Your task to perform on an android device: uninstall "Fetch Rewards" Image 0: 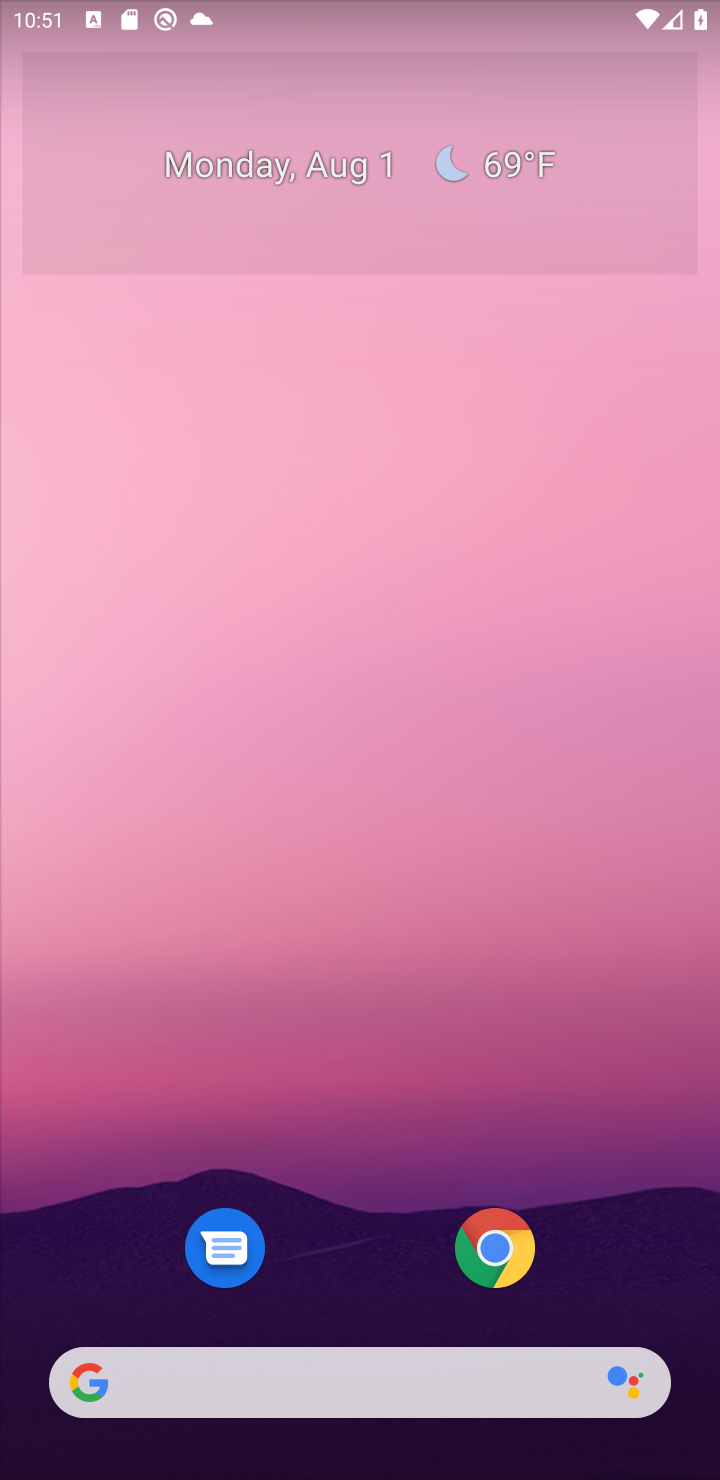
Step 0: drag from (354, 898) to (429, 220)
Your task to perform on an android device: uninstall "Fetch Rewards" Image 1: 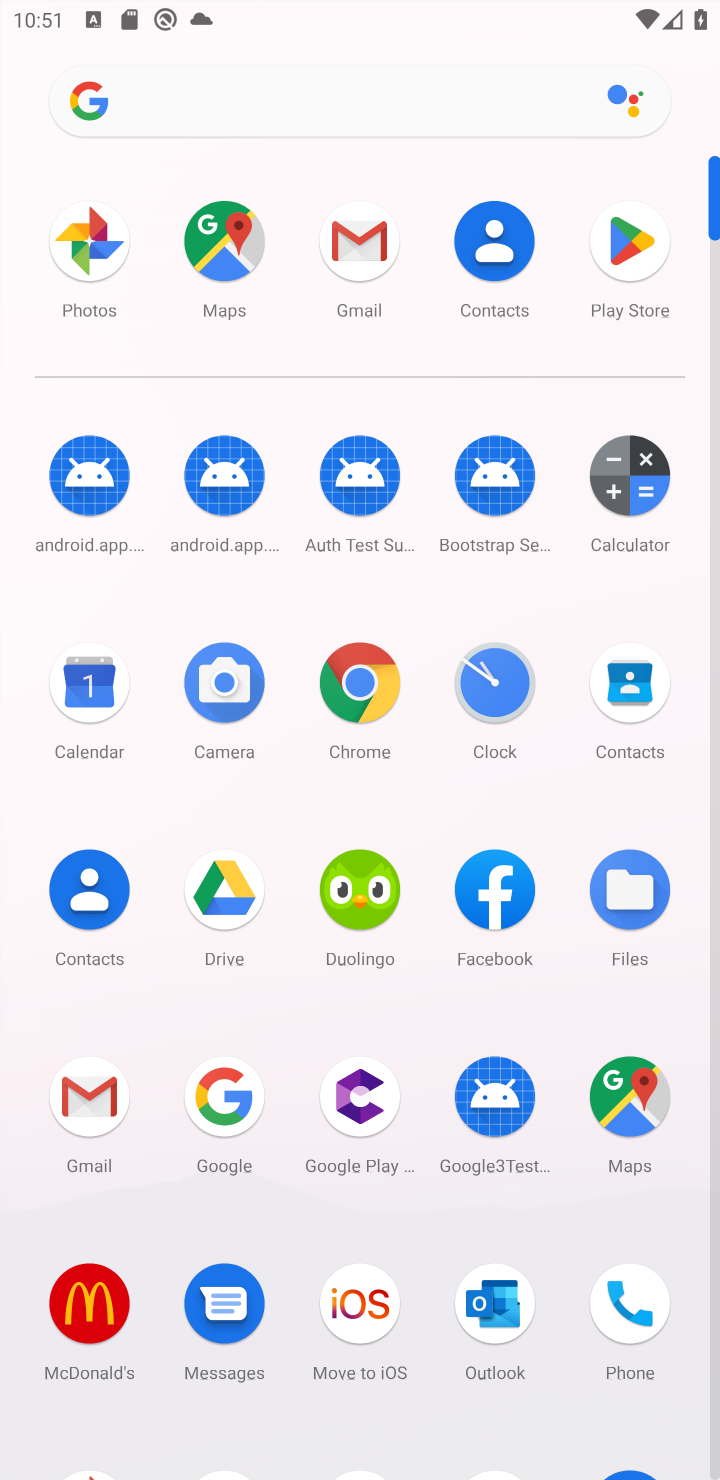
Step 1: drag from (426, 1084) to (518, 395)
Your task to perform on an android device: uninstall "Fetch Rewards" Image 2: 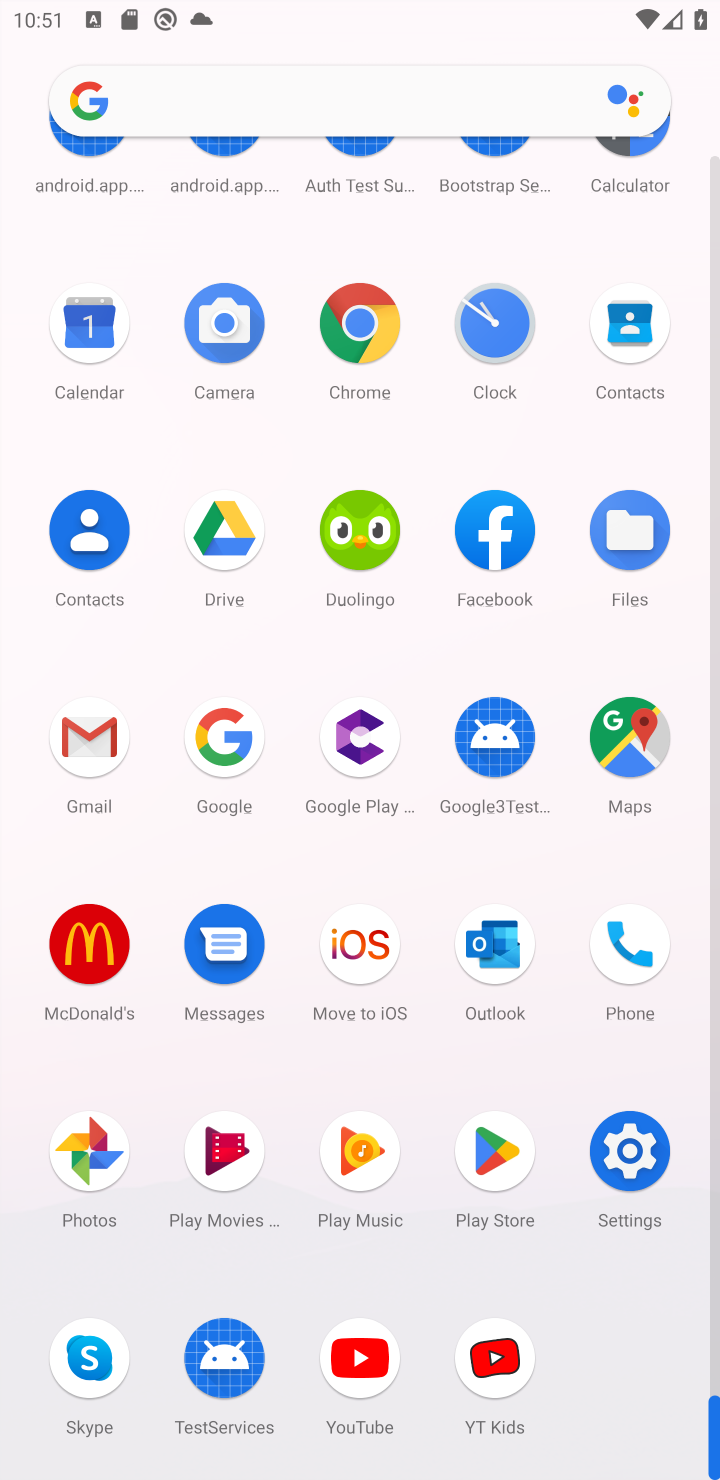
Step 2: click (495, 1143)
Your task to perform on an android device: uninstall "Fetch Rewards" Image 3: 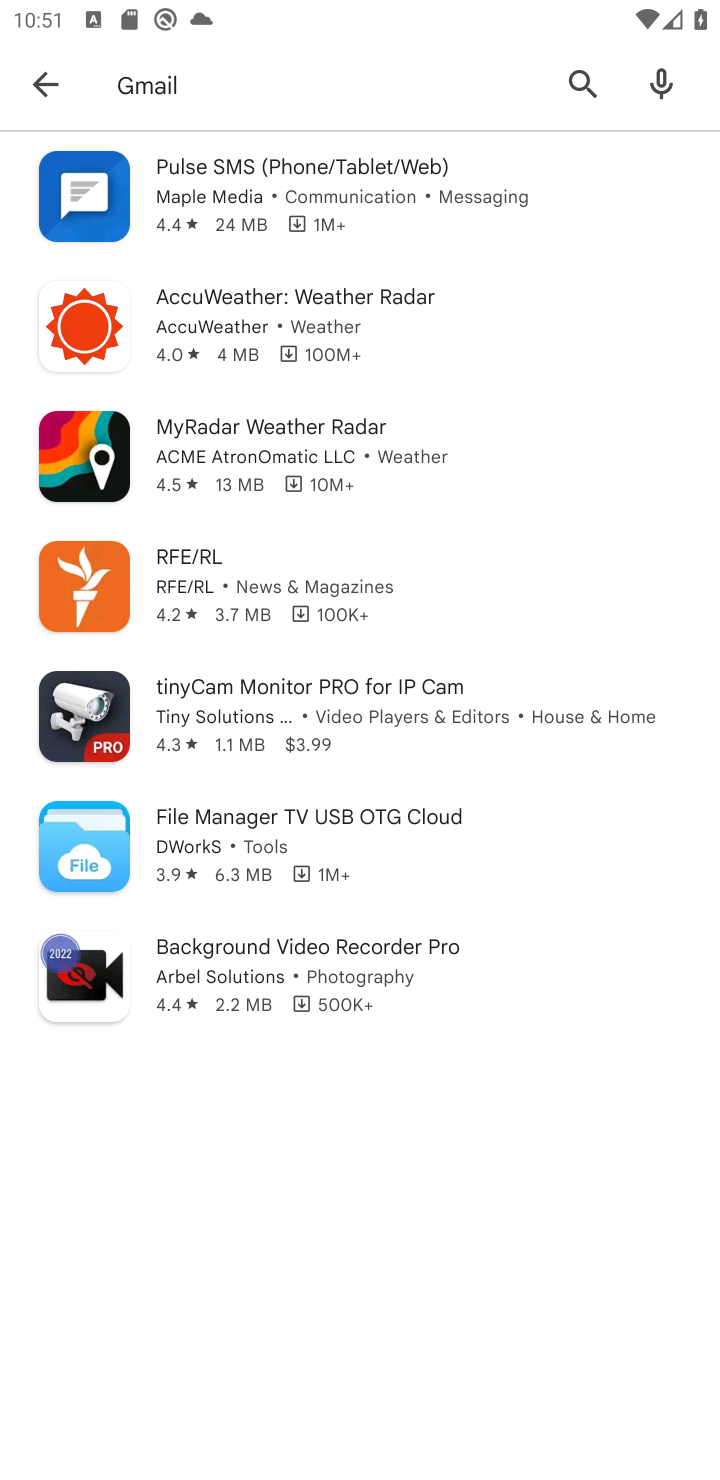
Step 3: click (222, 64)
Your task to perform on an android device: uninstall "Fetch Rewards" Image 4: 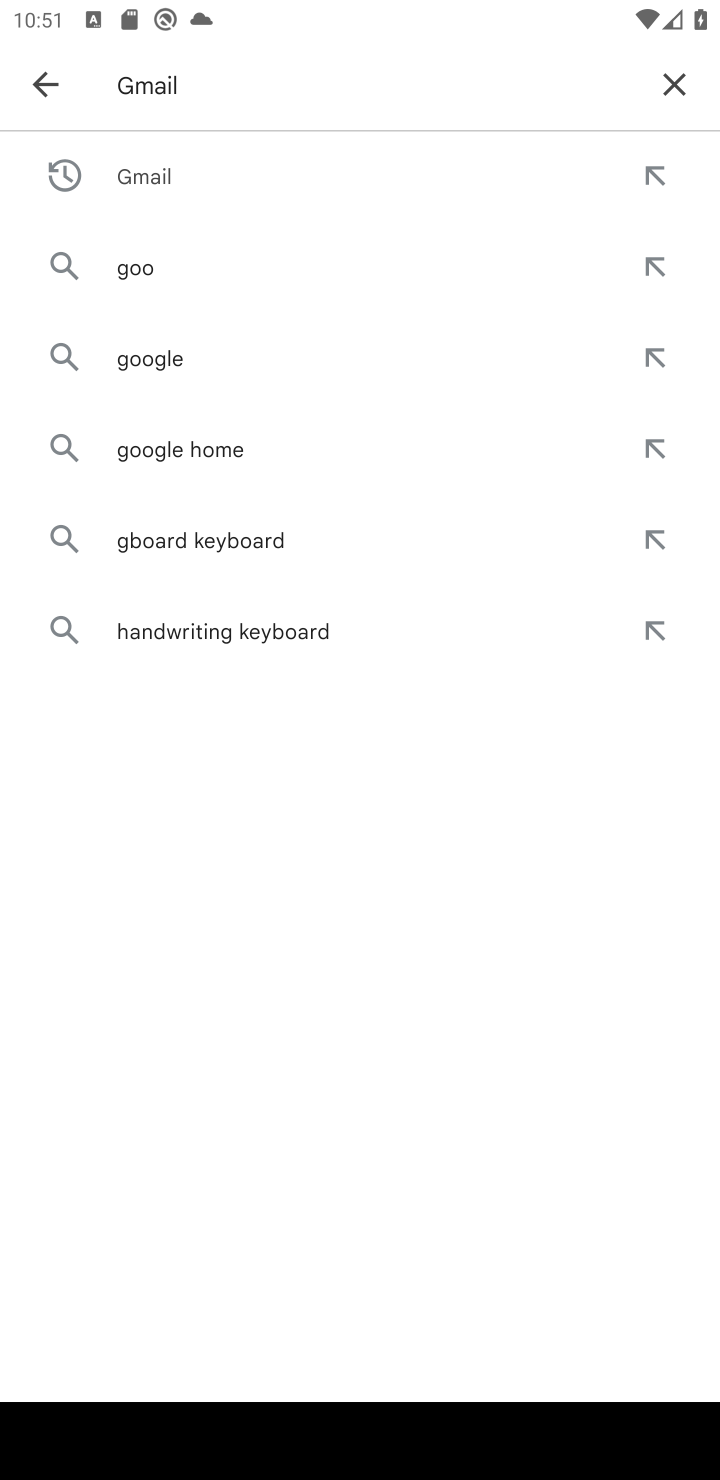
Step 4: click (669, 74)
Your task to perform on an android device: uninstall "Fetch Rewards" Image 5: 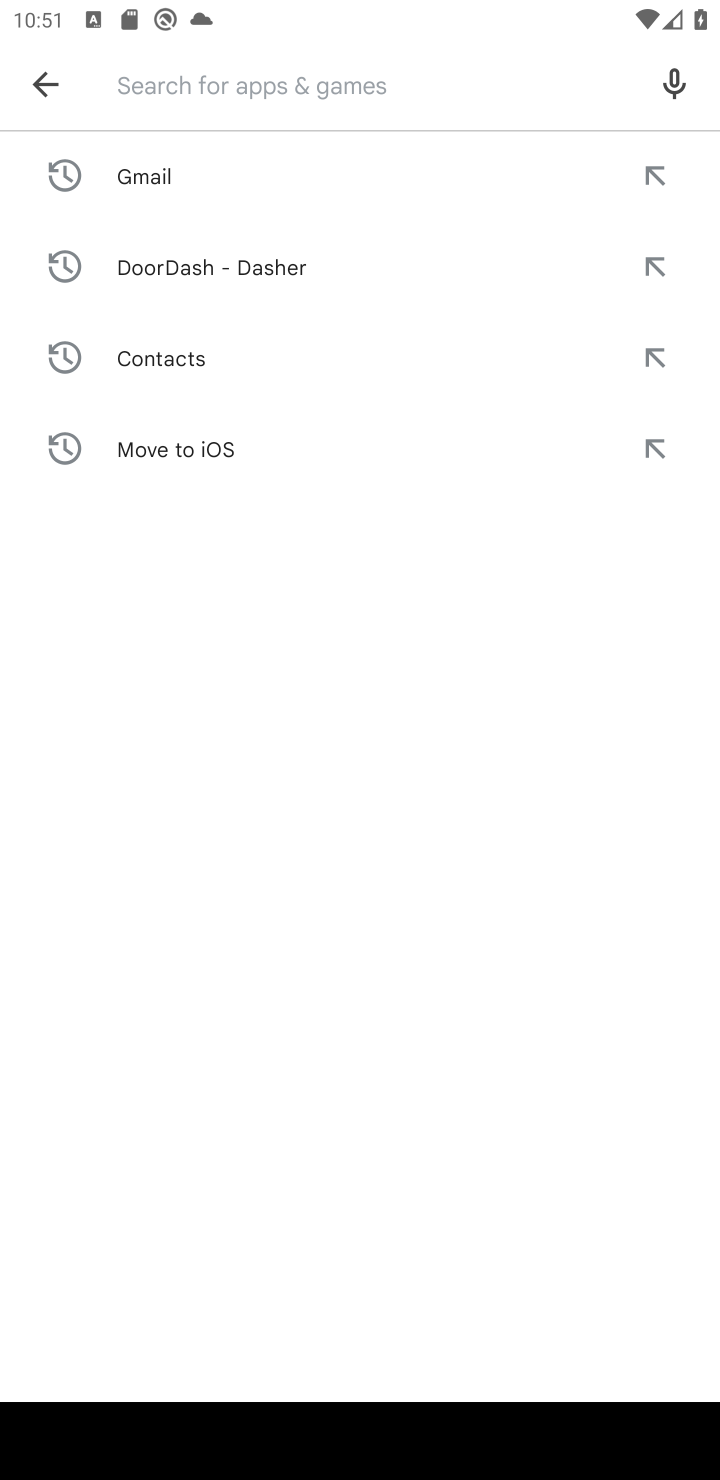
Step 5: type "Fetch Rewards"
Your task to perform on an android device: uninstall "Fetch Rewards" Image 6: 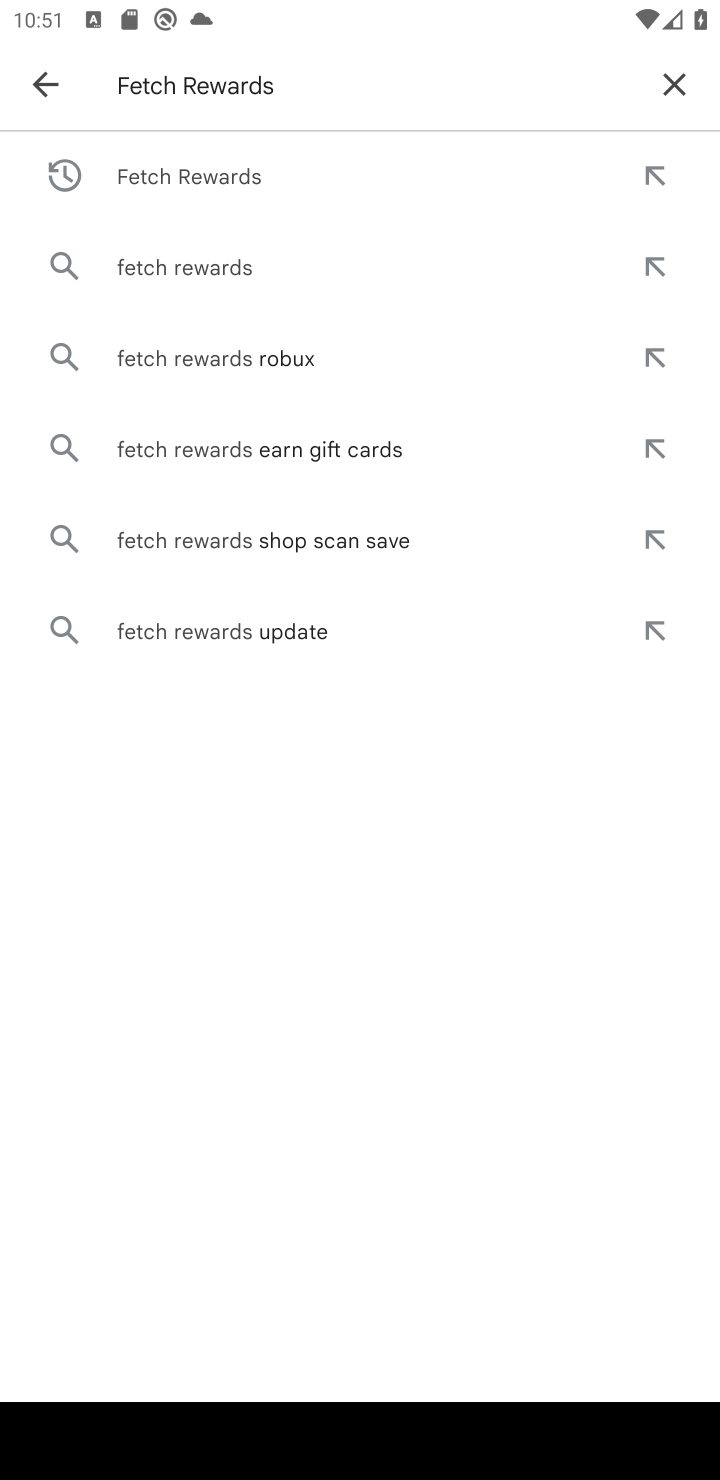
Step 6: press enter
Your task to perform on an android device: uninstall "Fetch Rewards" Image 7: 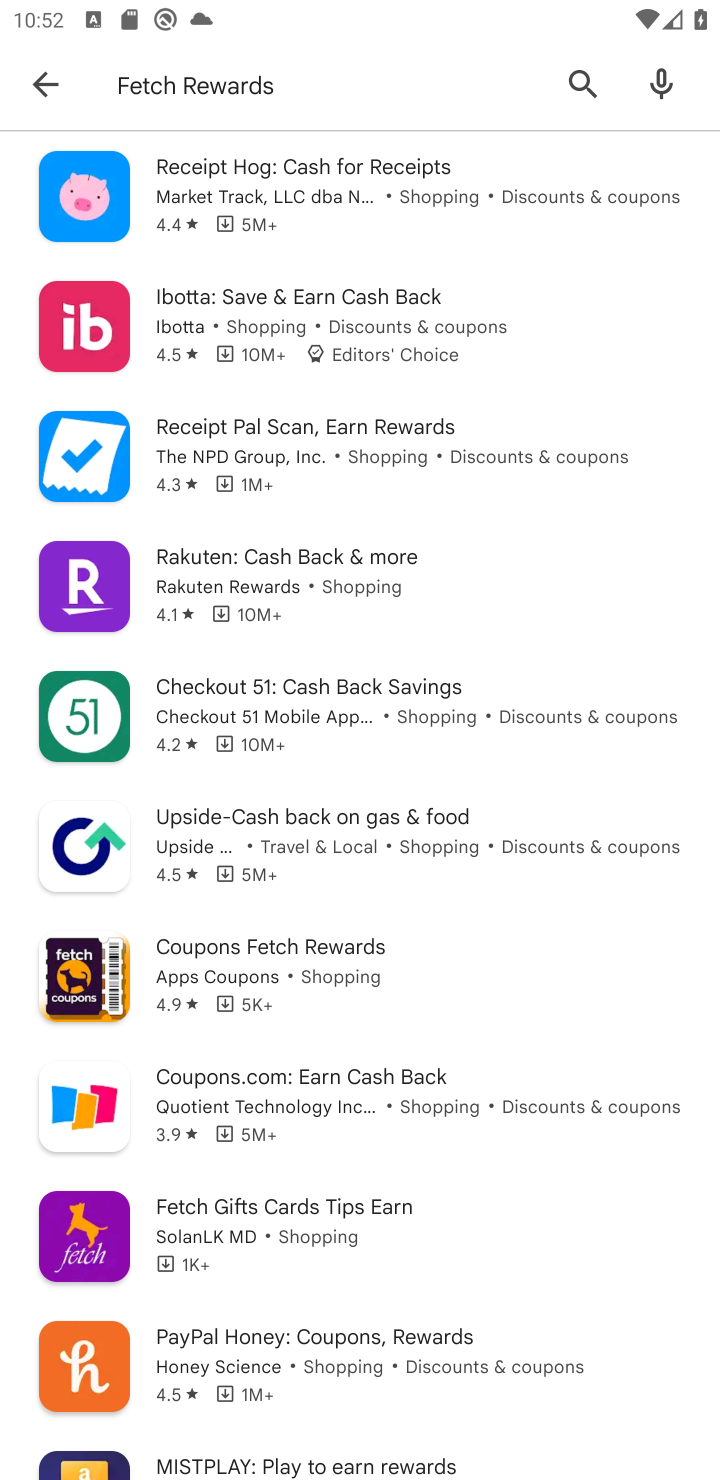
Step 7: task complete